Your task to perform on an android device: Search for amazon basics triple a on walmart, select the first entry, add it to the cart, then select checkout. Image 0: 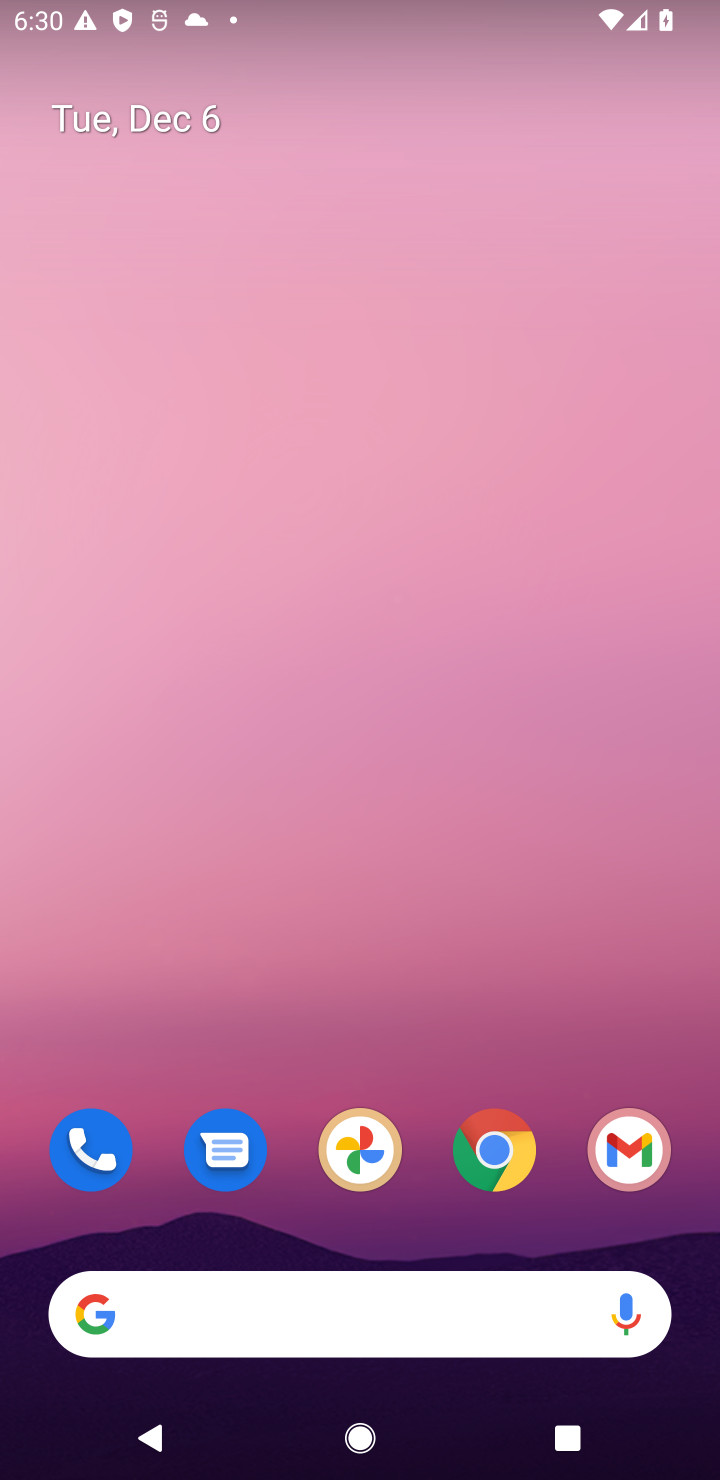
Step 0: click (502, 1164)
Your task to perform on an android device: Search for amazon basics triple a on walmart, select the first entry, add it to the cart, then select checkout. Image 1: 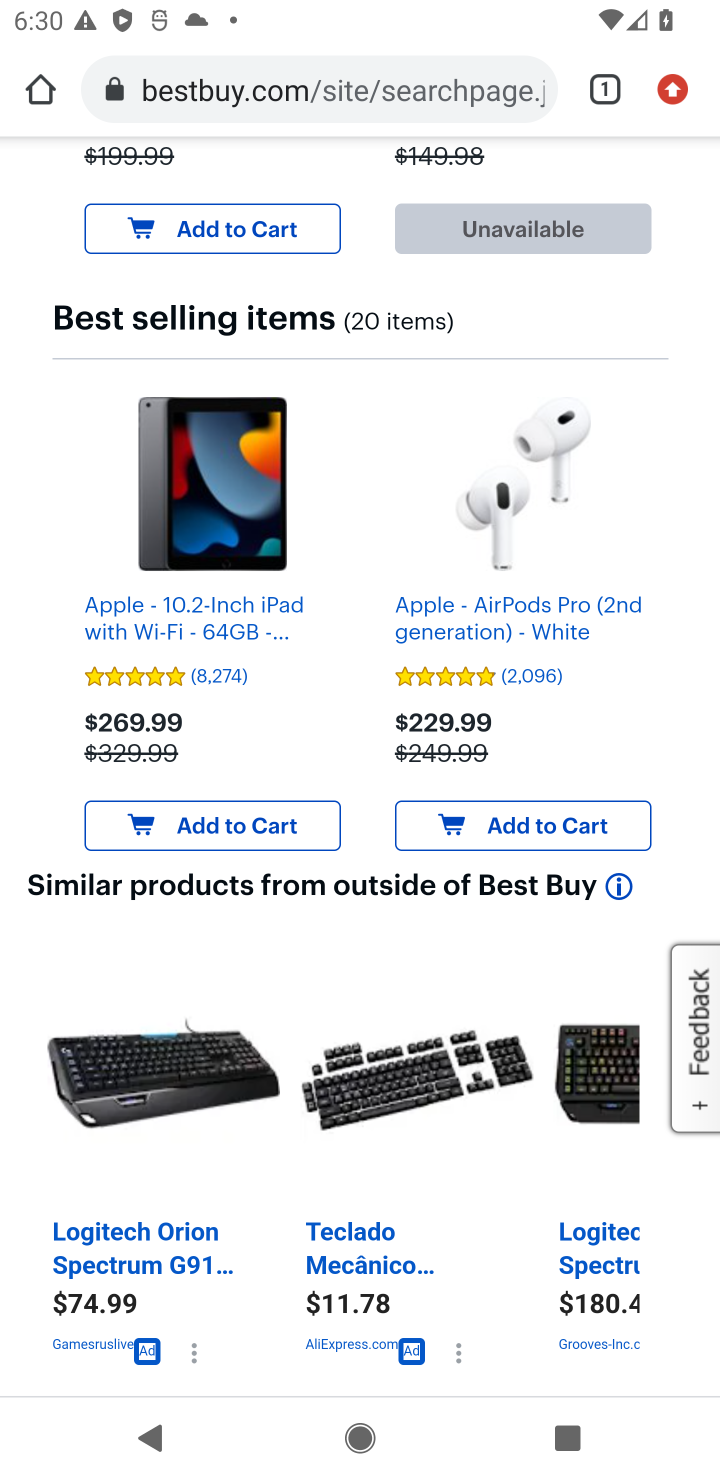
Step 1: click (281, 99)
Your task to perform on an android device: Search for amazon basics triple a on walmart, select the first entry, add it to the cart, then select checkout. Image 2: 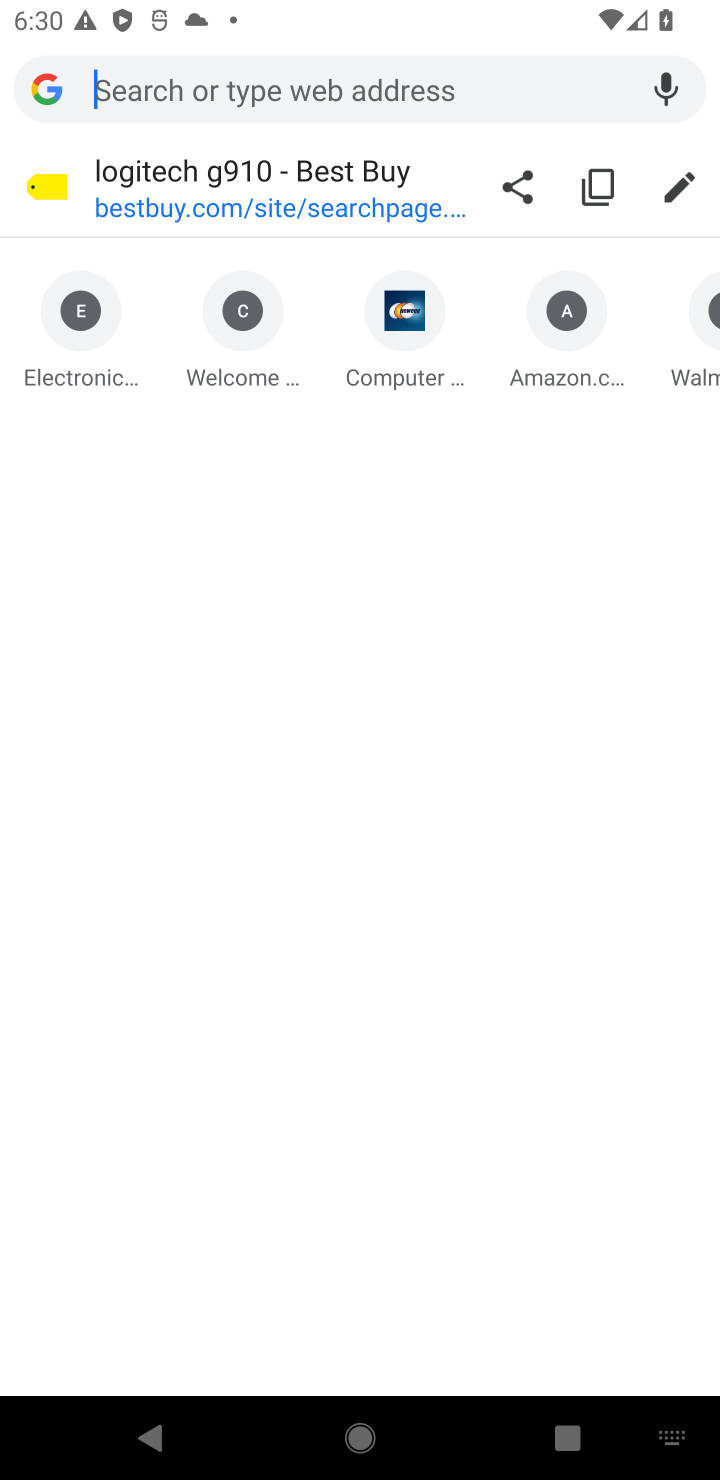
Step 2: type "walmart.com"
Your task to perform on an android device: Search for amazon basics triple a on walmart, select the first entry, add it to the cart, then select checkout. Image 3: 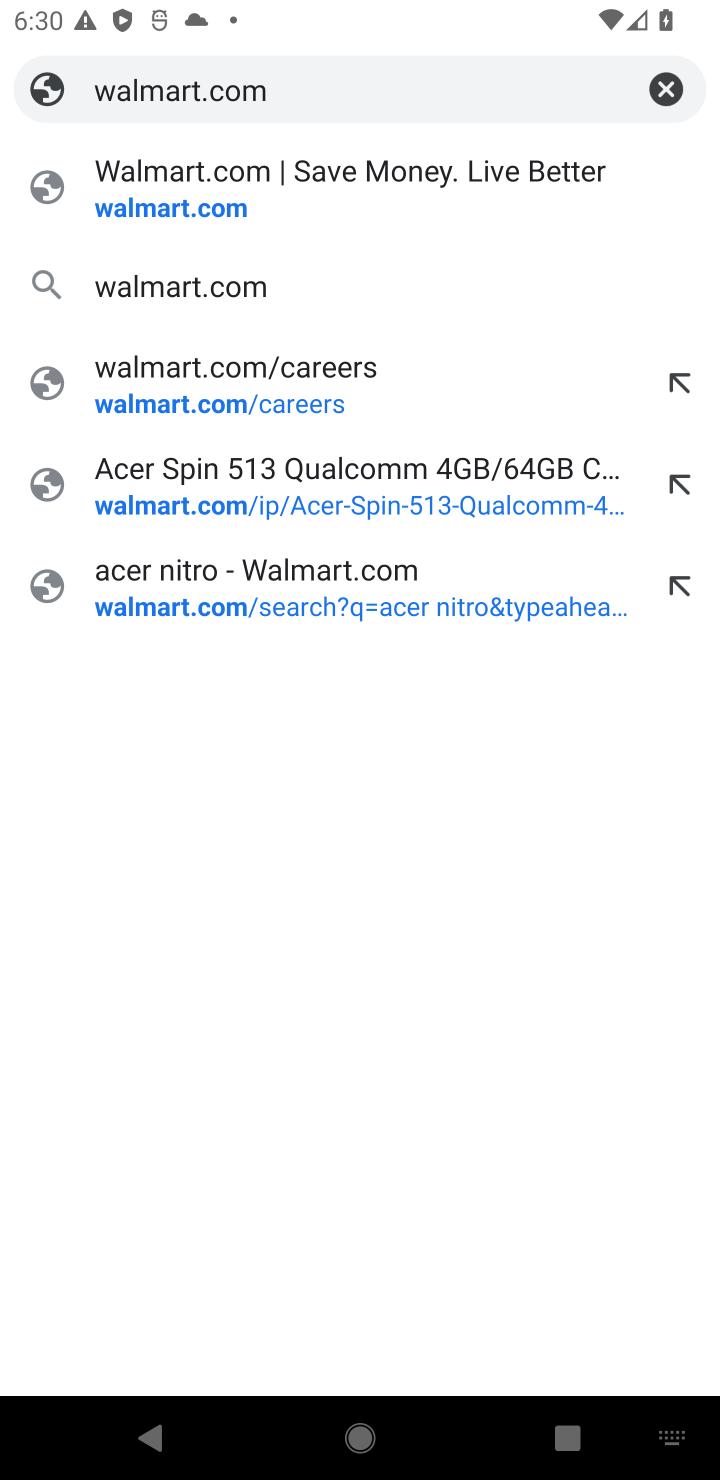
Step 3: click (180, 220)
Your task to perform on an android device: Search for amazon basics triple a on walmart, select the first entry, add it to the cart, then select checkout. Image 4: 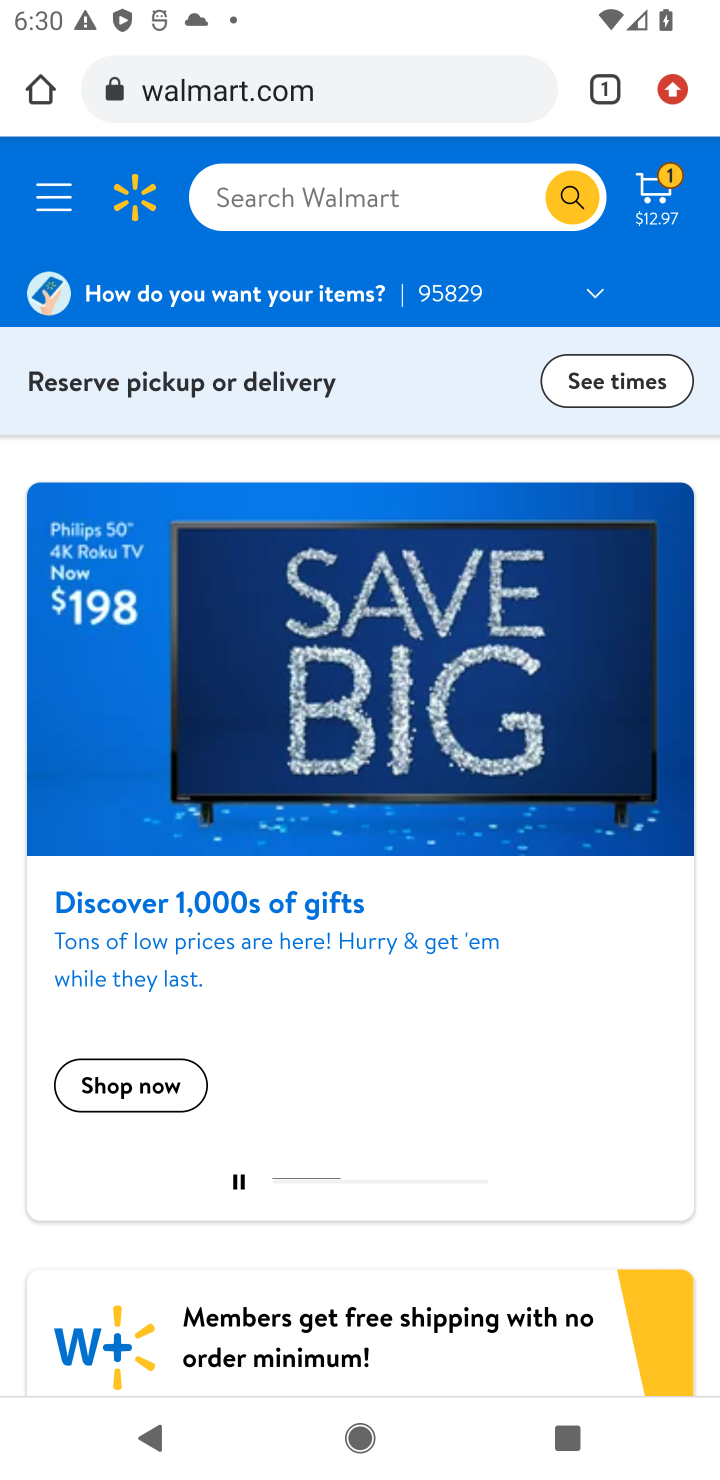
Step 4: click (255, 209)
Your task to perform on an android device: Search for amazon basics triple a on walmart, select the first entry, add it to the cart, then select checkout. Image 5: 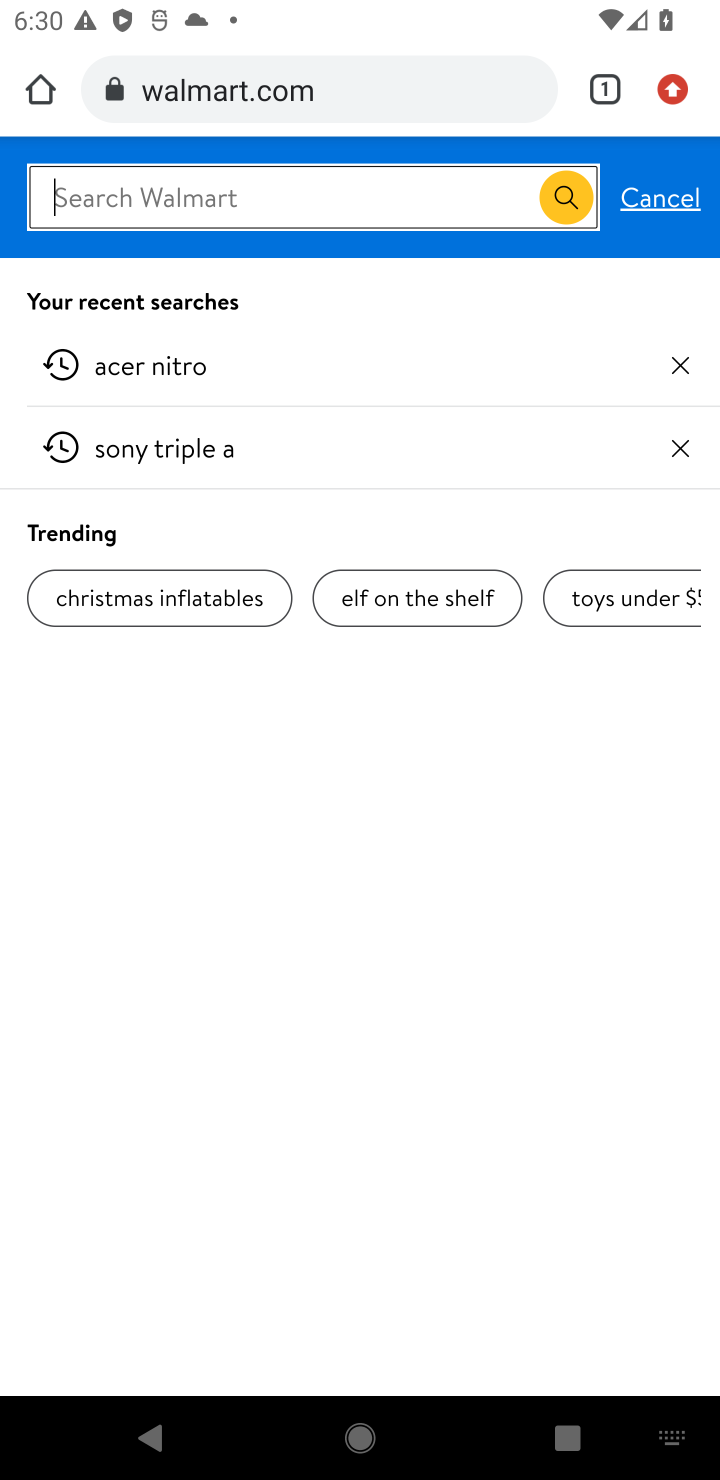
Step 5: type "amazon basics triple a"
Your task to perform on an android device: Search for amazon basics triple a on walmart, select the first entry, add it to the cart, then select checkout. Image 6: 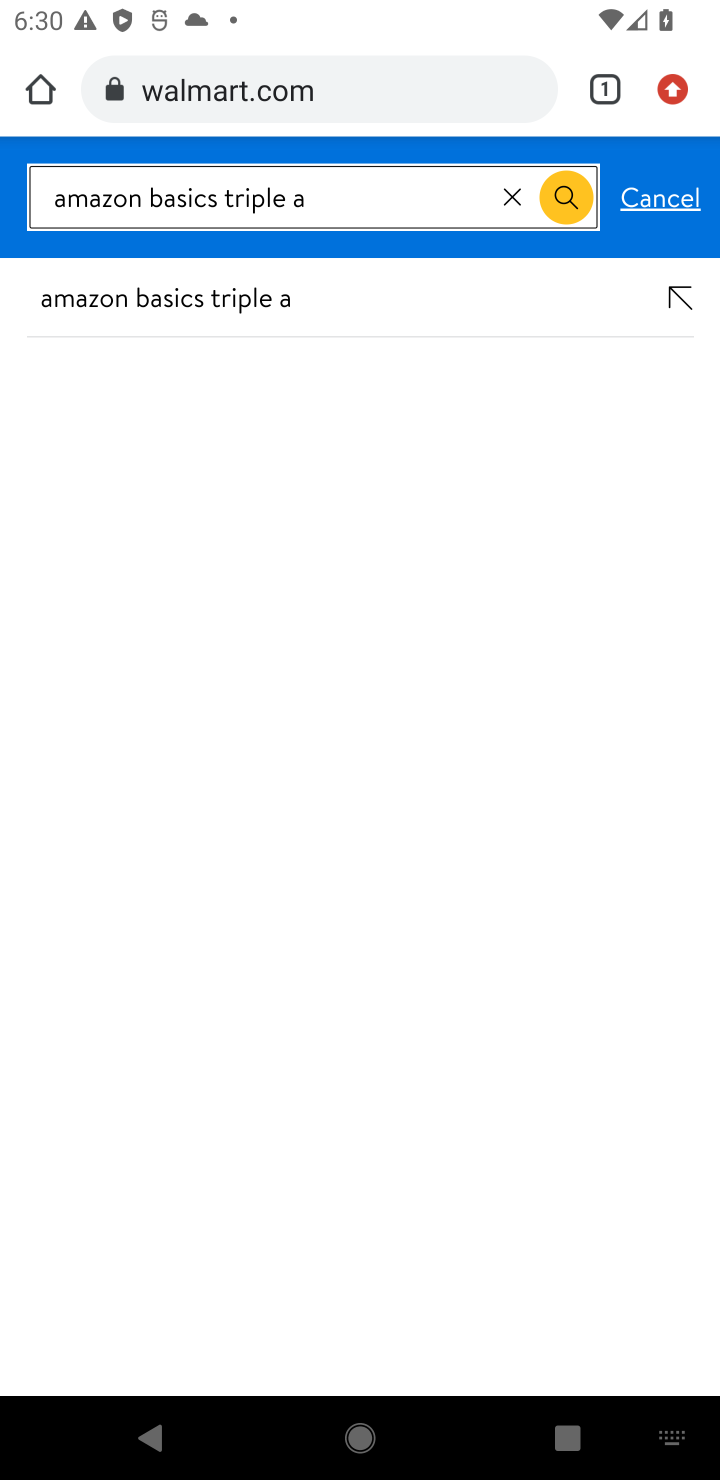
Step 6: click (182, 293)
Your task to perform on an android device: Search for amazon basics triple a on walmart, select the first entry, add it to the cart, then select checkout. Image 7: 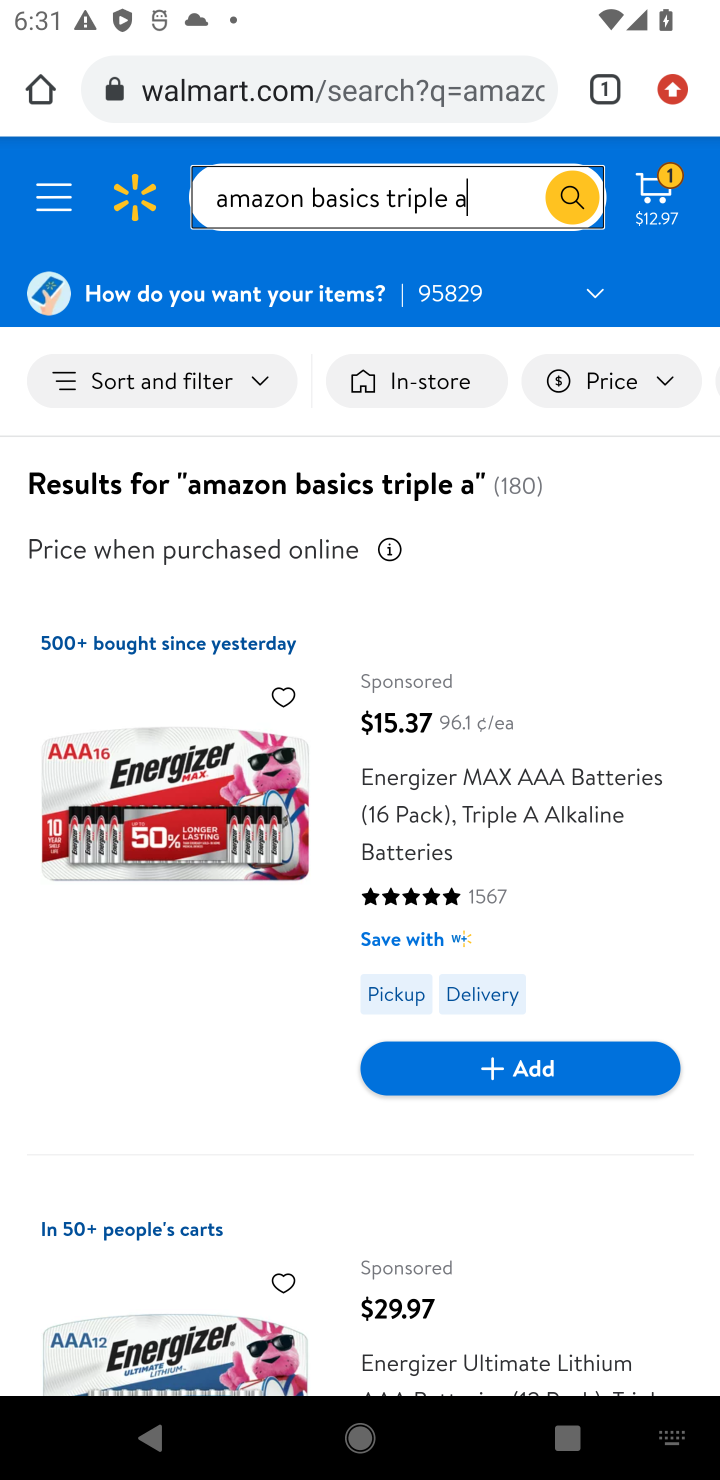
Step 7: task complete